Your task to perform on an android device: What's the weather going to be this weekend? Image 0: 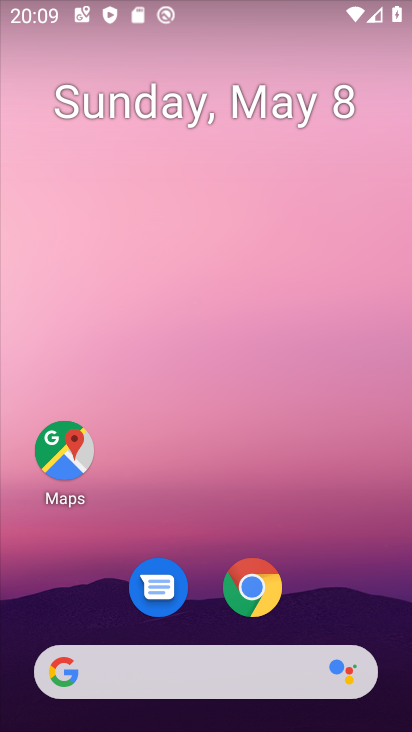
Step 0: drag from (157, 532) to (202, 20)
Your task to perform on an android device: What's the weather going to be this weekend? Image 1: 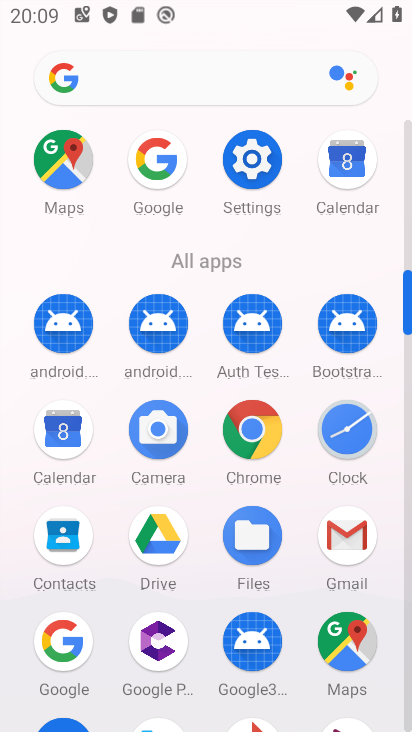
Step 1: click (59, 640)
Your task to perform on an android device: What's the weather going to be this weekend? Image 2: 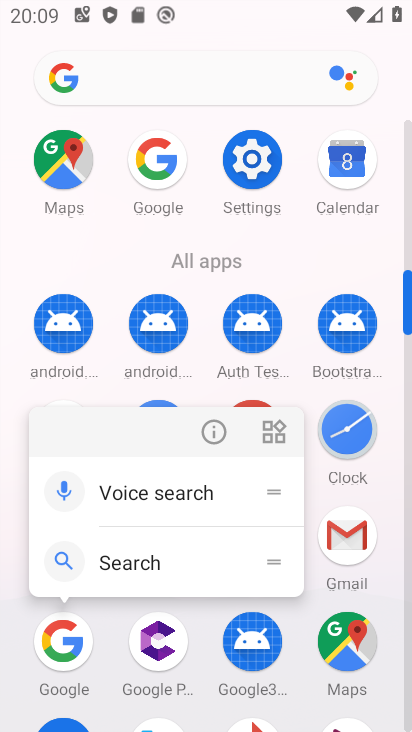
Step 2: click (57, 644)
Your task to perform on an android device: What's the weather going to be this weekend? Image 3: 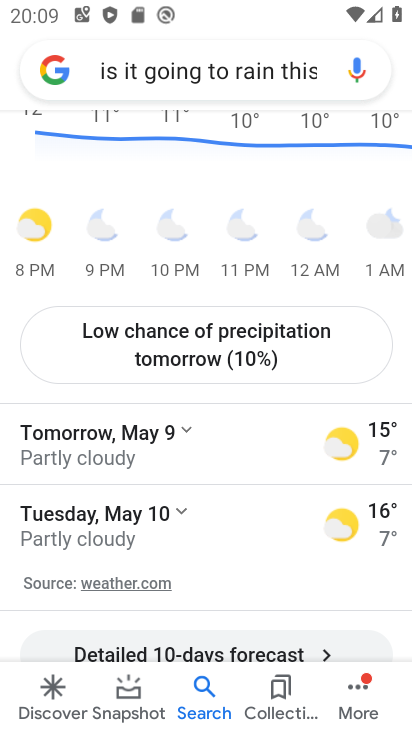
Step 3: task complete